Your task to perform on an android device: toggle airplane mode Image 0: 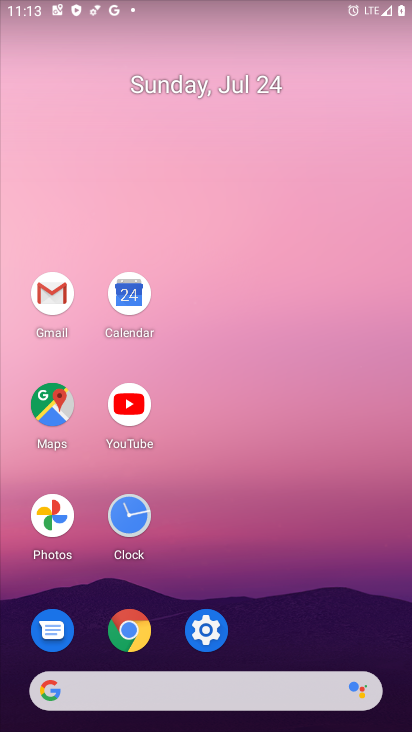
Step 0: click (203, 630)
Your task to perform on an android device: toggle airplane mode Image 1: 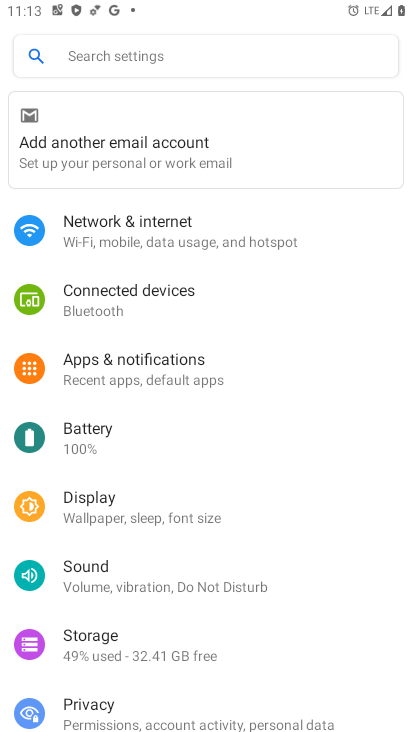
Step 1: click (137, 223)
Your task to perform on an android device: toggle airplane mode Image 2: 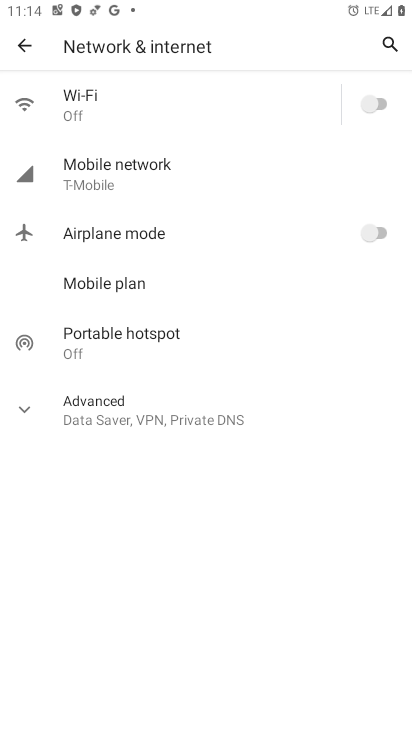
Step 2: click (374, 230)
Your task to perform on an android device: toggle airplane mode Image 3: 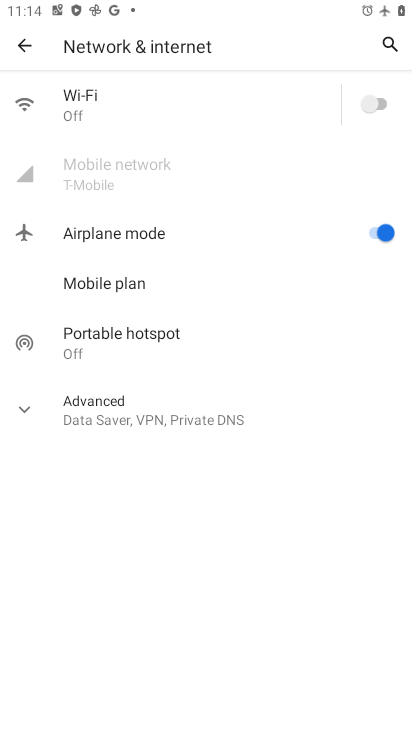
Step 3: task complete